Your task to perform on an android device: Open Yahoo.com Image 0: 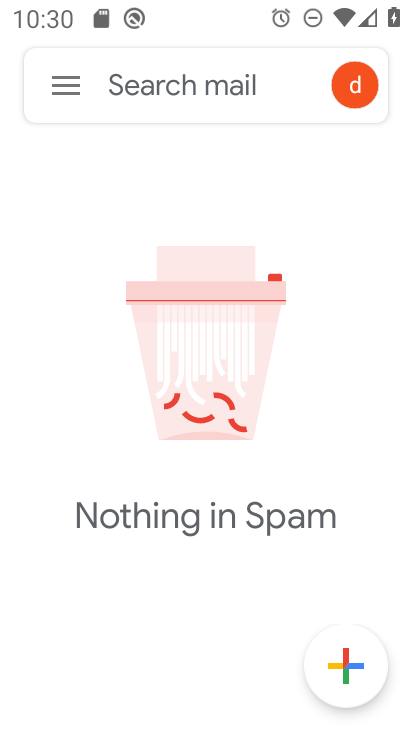
Step 0: press home button
Your task to perform on an android device: Open Yahoo.com Image 1: 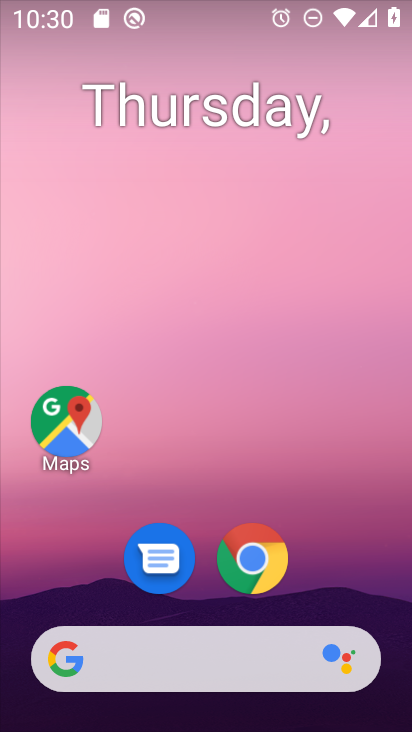
Step 1: click (257, 558)
Your task to perform on an android device: Open Yahoo.com Image 2: 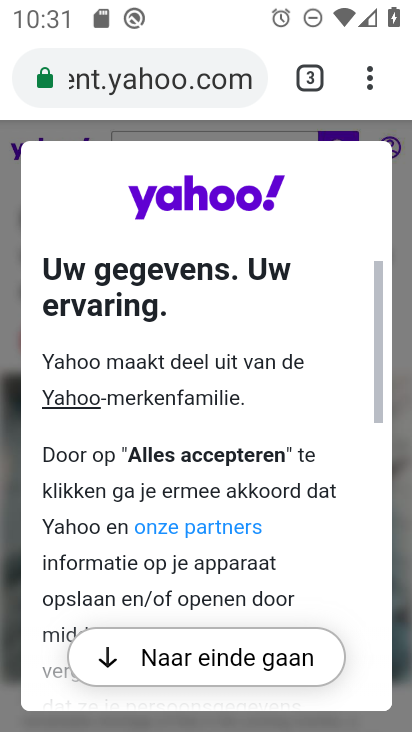
Step 2: task complete